Your task to perform on an android device: Open location settings Image 0: 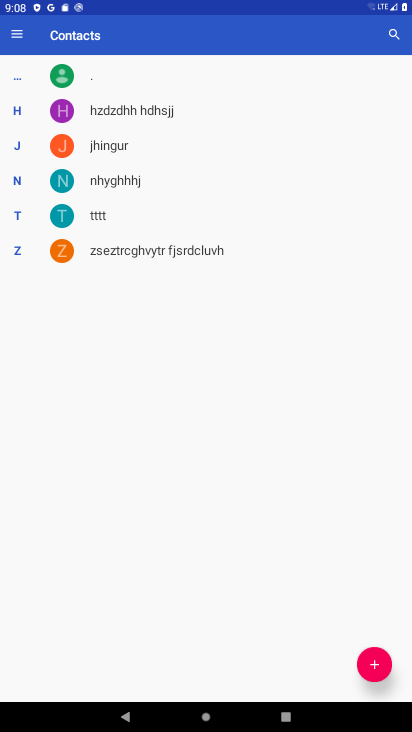
Step 0: drag from (39, 712) to (132, 527)
Your task to perform on an android device: Open location settings Image 1: 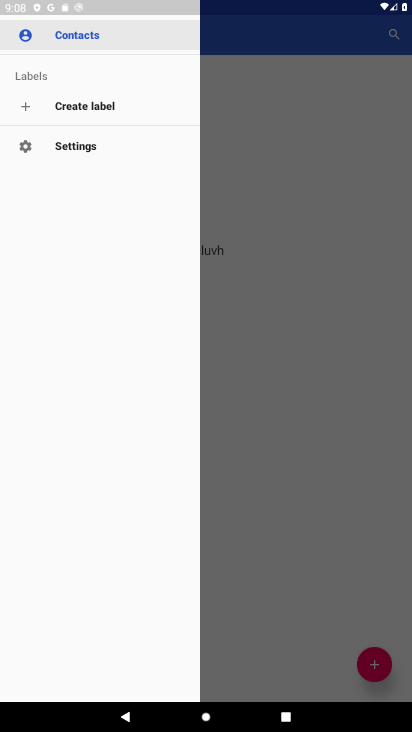
Step 1: press home button
Your task to perform on an android device: Open location settings Image 2: 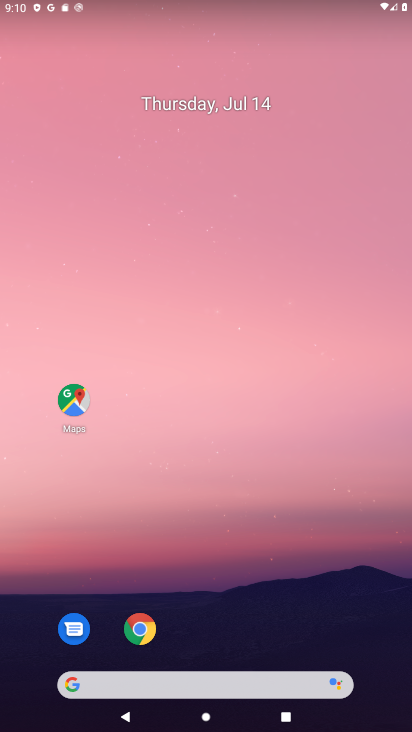
Step 2: drag from (55, 526) to (274, 22)
Your task to perform on an android device: Open location settings Image 3: 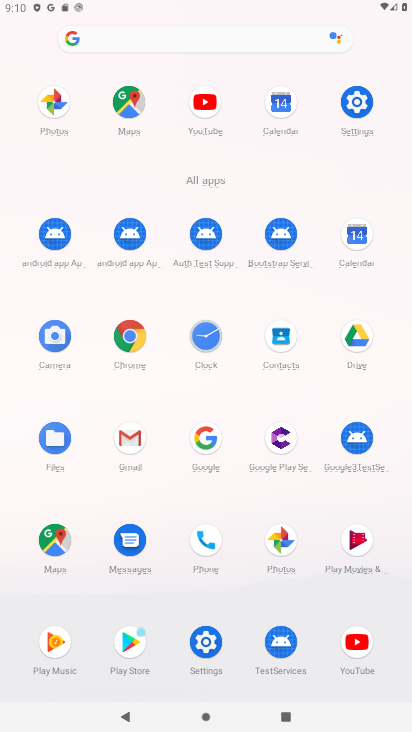
Step 3: click (346, 106)
Your task to perform on an android device: Open location settings Image 4: 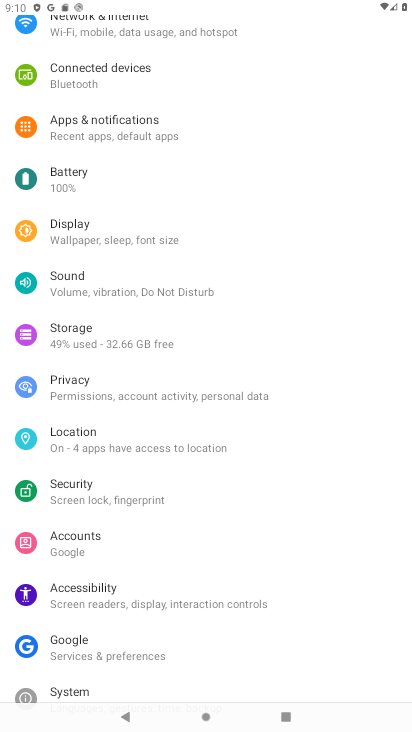
Step 4: click (81, 433)
Your task to perform on an android device: Open location settings Image 5: 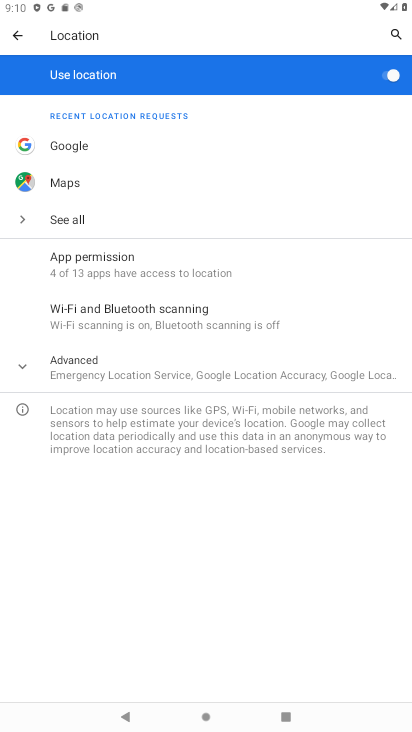
Step 5: task complete